Your task to perform on an android device: change text size in settings app Image 0: 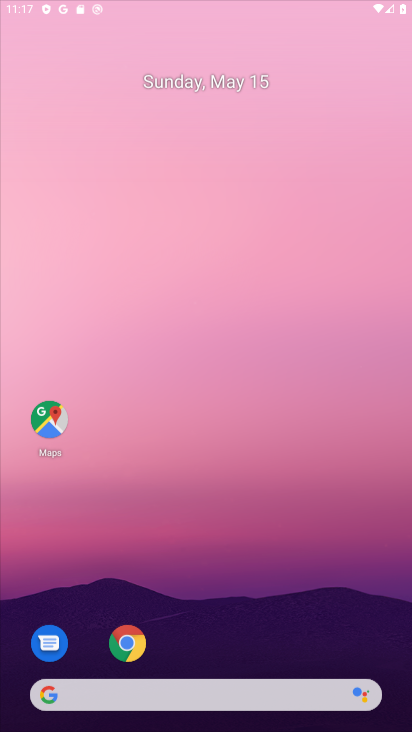
Step 0: click (321, 204)
Your task to perform on an android device: change text size in settings app Image 1: 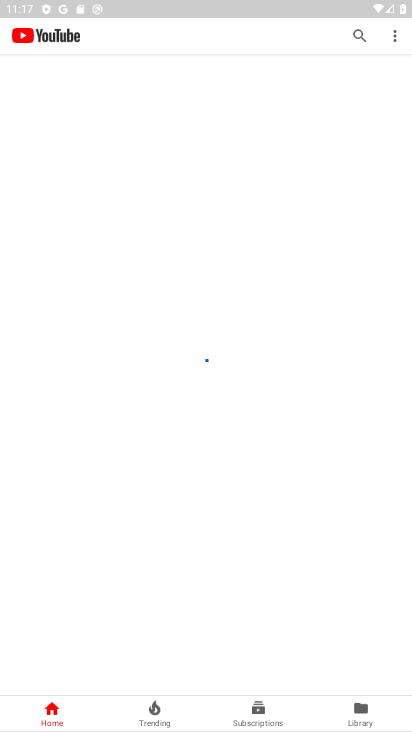
Step 1: drag from (185, 636) to (266, 5)
Your task to perform on an android device: change text size in settings app Image 2: 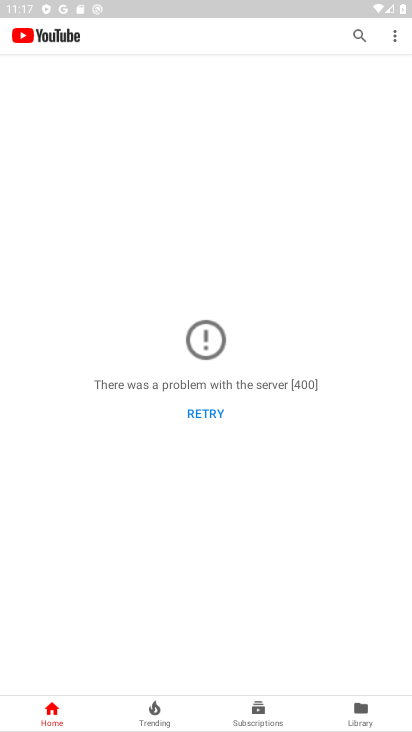
Step 2: press home button
Your task to perform on an android device: change text size in settings app Image 3: 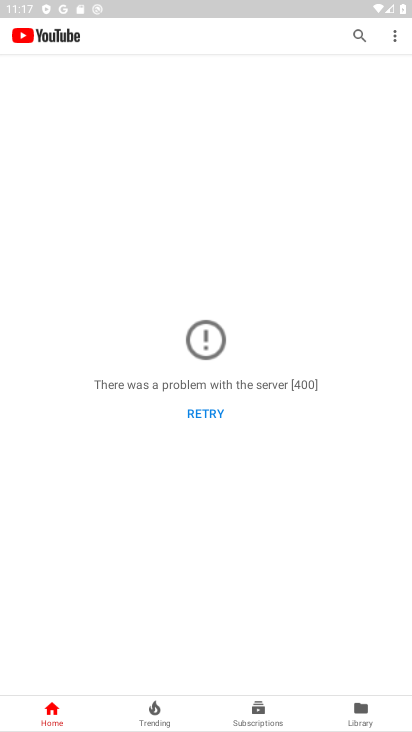
Step 3: press home button
Your task to perform on an android device: change text size in settings app Image 4: 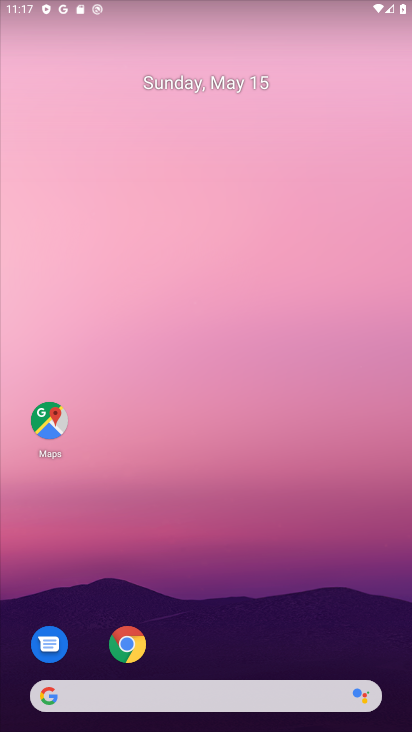
Step 4: drag from (213, 609) to (203, 347)
Your task to perform on an android device: change text size in settings app Image 5: 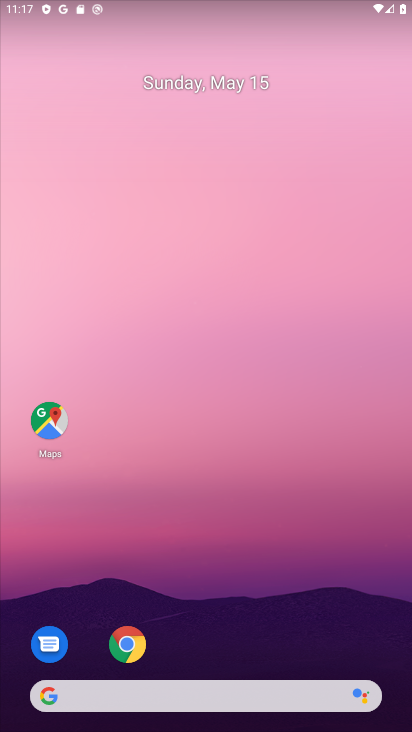
Step 5: drag from (232, 678) to (301, 80)
Your task to perform on an android device: change text size in settings app Image 6: 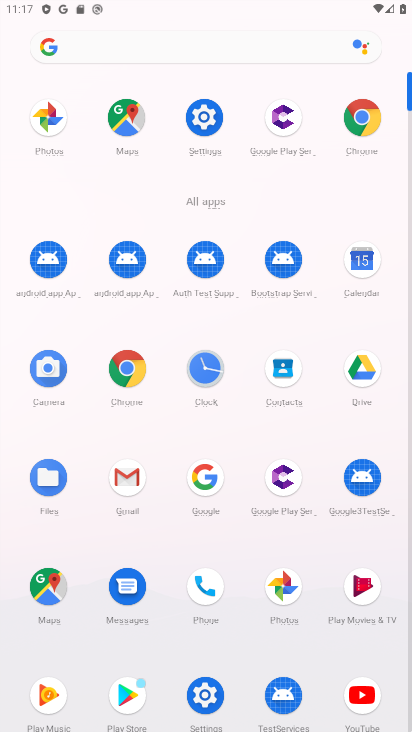
Step 6: click (204, 694)
Your task to perform on an android device: change text size in settings app Image 7: 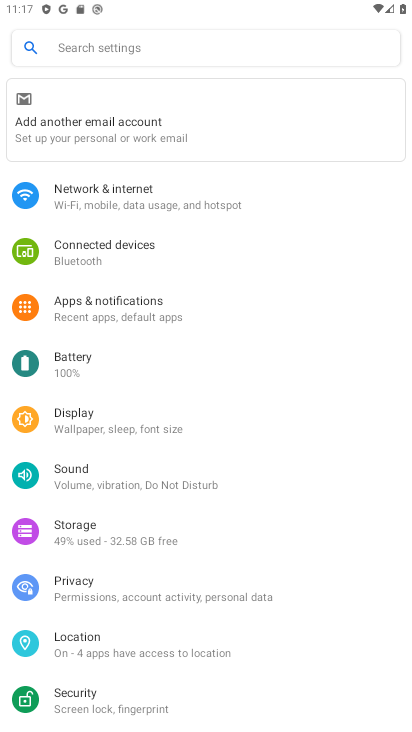
Step 7: drag from (176, 692) to (191, 336)
Your task to perform on an android device: change text size in settings app Image 8: 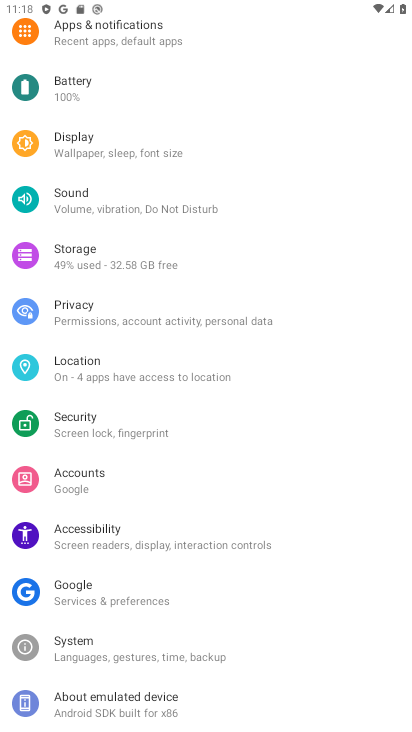
Step 8: click (142, 147)
Your task to perform on an android device: change text size in settings app Image 9: 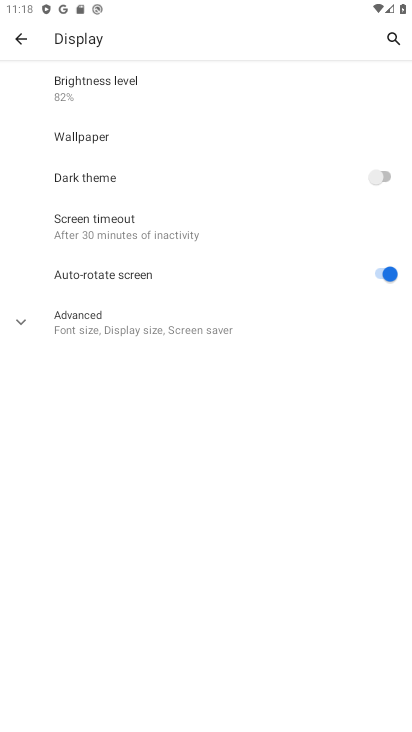
Step 9: click (151, 303)
Your task to perform on an android device: change text size in settings app Image 10: 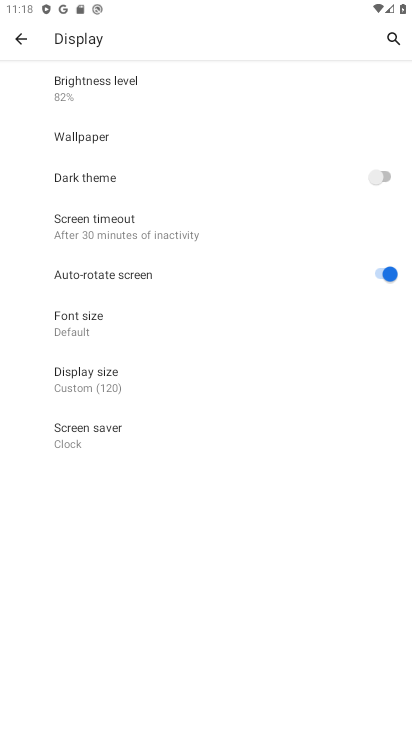
Step 10: click (115, 324)
Your task to perform on an android device: change text size in settings app Image 11: 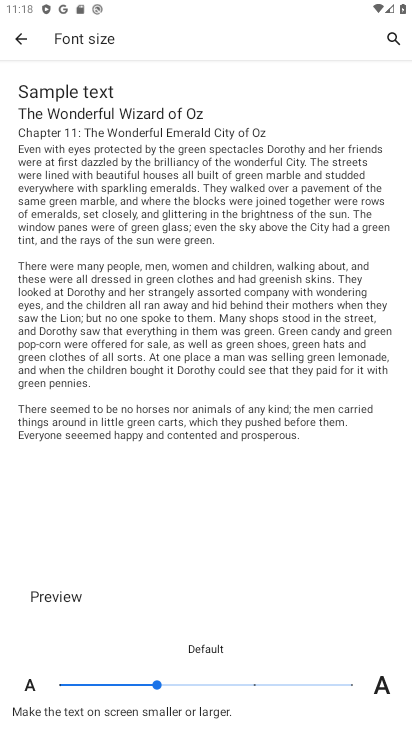
Step 11: click (244, 681)
Your task to perform on an android device: change text size in settings app Image 12: 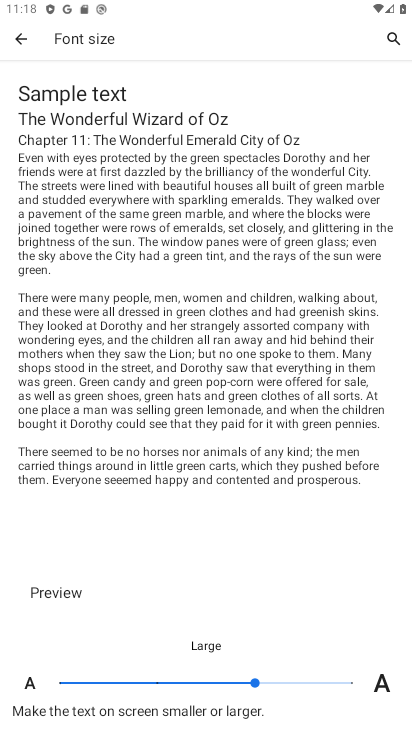
Step 12: task complete